Your task to perform on an android device: Go to CNN.com Image 0: 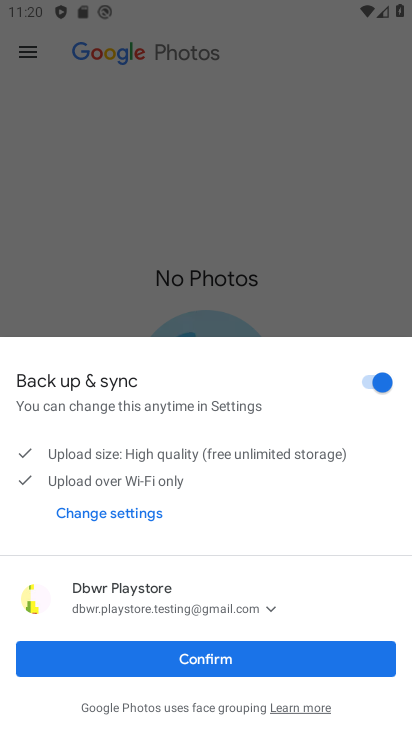
Step 0: press back button
Your task to perform on an android device: Go to CNN.com Image 1: 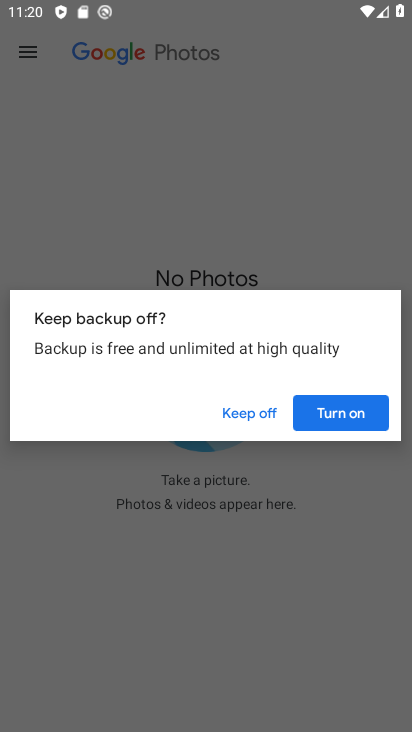
Step 1: press back button
Your task to perform on an android device: Go to CNN.com Image 2: 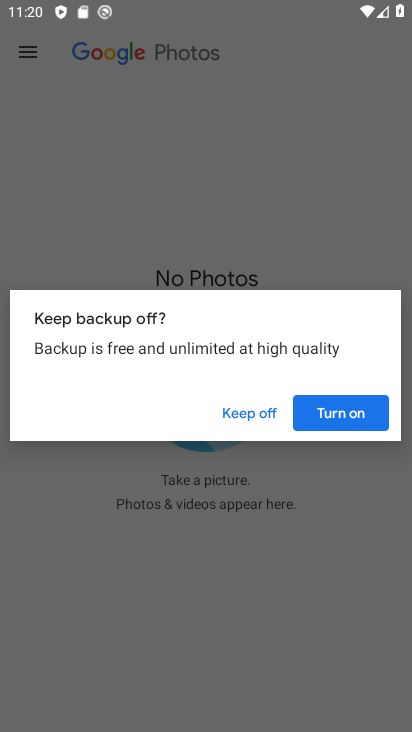
Step 2: press back button
Your task to perform on an android device: Go to CNN.com Image 3: 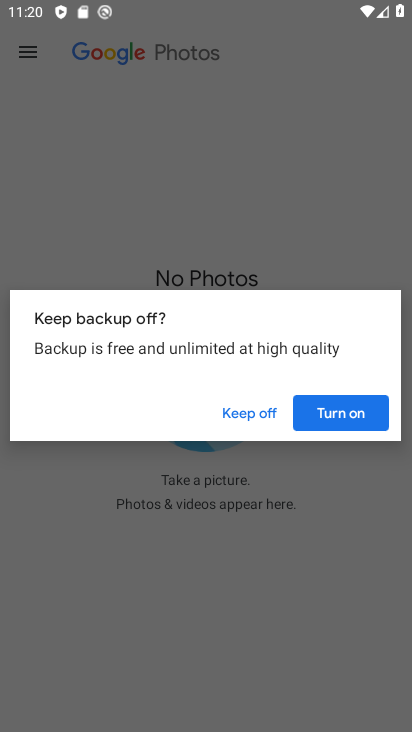
Step 3: press back button
Your task to perform on an android device: Go to CNN.com Image 4: 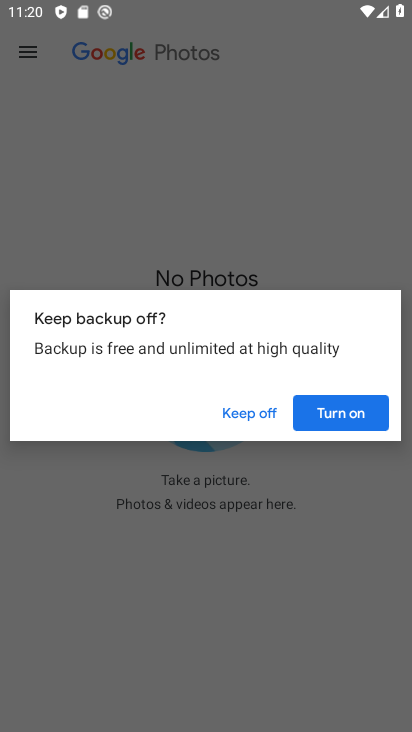
Step 4: press back button
Your task to perform on an android device: Go to CNN.com Image 5: 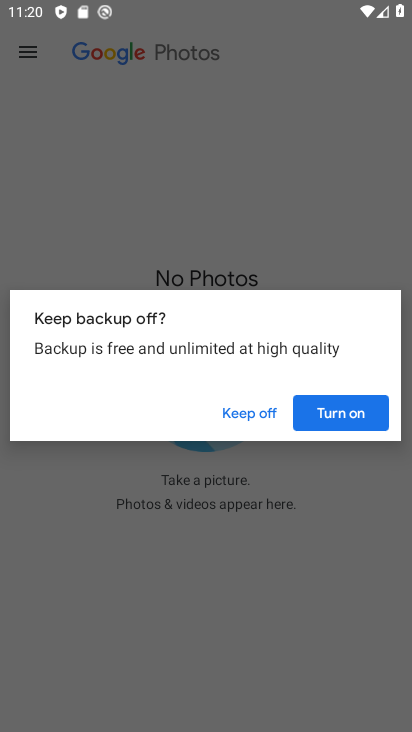
Step 5: click (265, 415)
Your task to perform on an android device: Go to CNN.com Image 6: 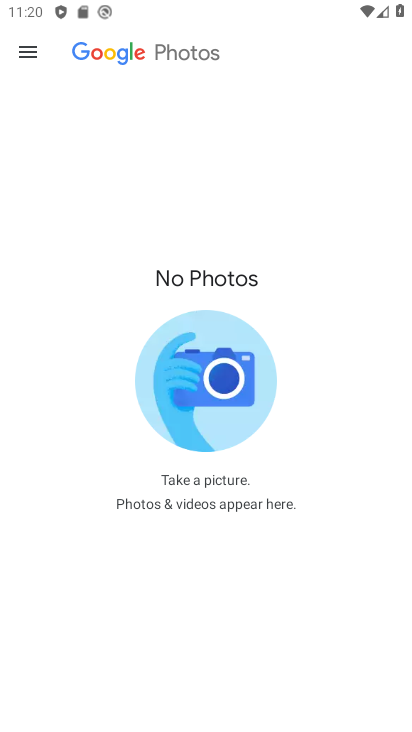
Step 6: press back button
Your task to perform on an android device: Go to CNN.com Image 7: 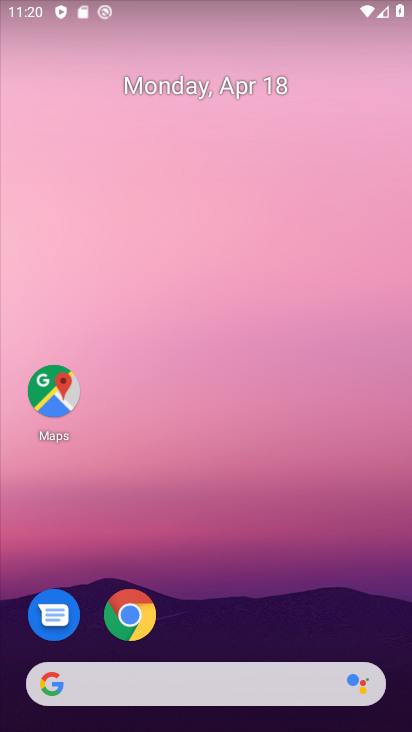
Step 7: click (129, 615)
Your task to perform on an android device: Go to CNN.com Image 8: 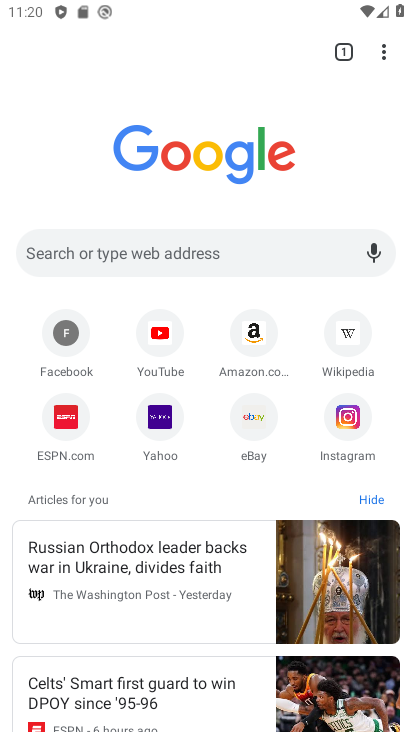
Step 8: click (189, 252)
Your task to perform on an android device: Go to CNN.com Image 9: 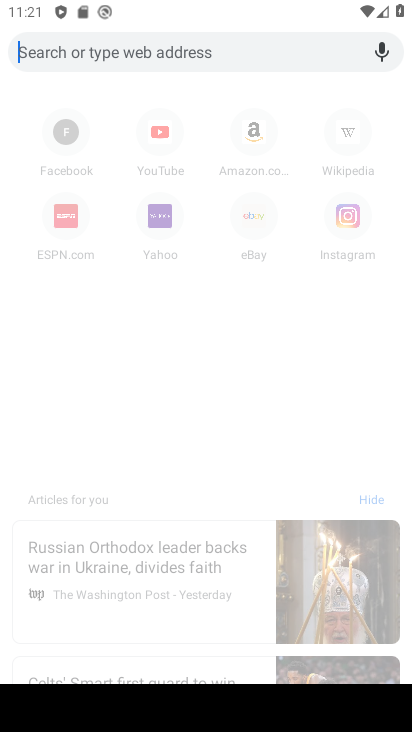
Step 9: type "CNN.com"
Your task to perform on an android device: Go to CNN.com Image 10: 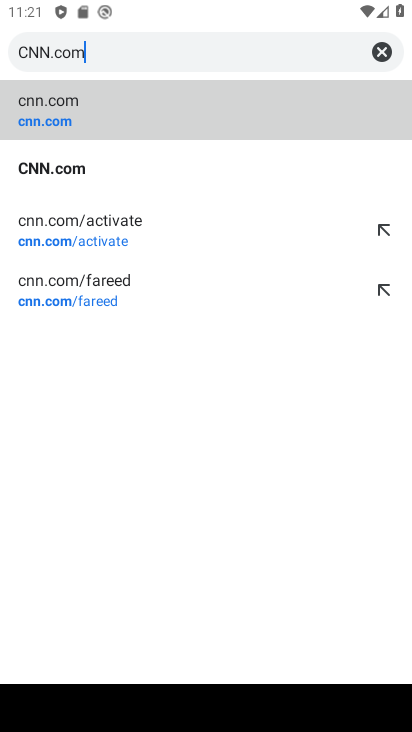
Step 10: click (55, 165)
Your task to perform on an android device: Go to CNN.com Image 11: 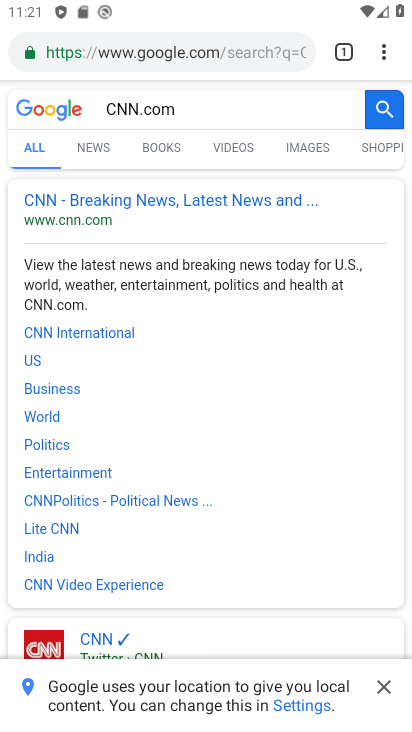
Step 11: click (96, 204)
Your task to perform on an android device: Go to CNN.com Image 12: 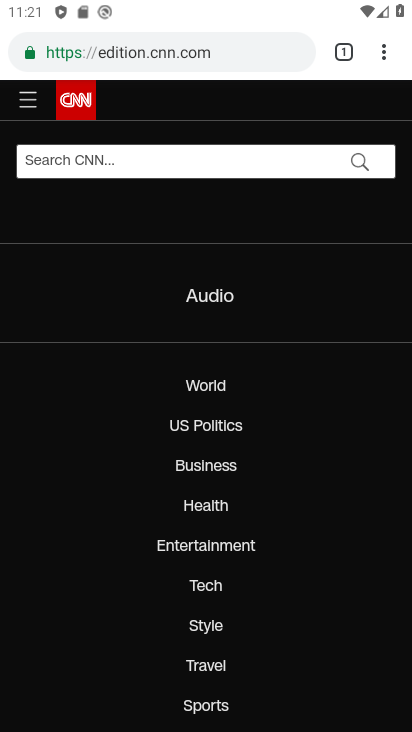
Step 12: task complete